Your task to perform on an android device: Add rayovac triple a to the cart on bestbuy Image 0: 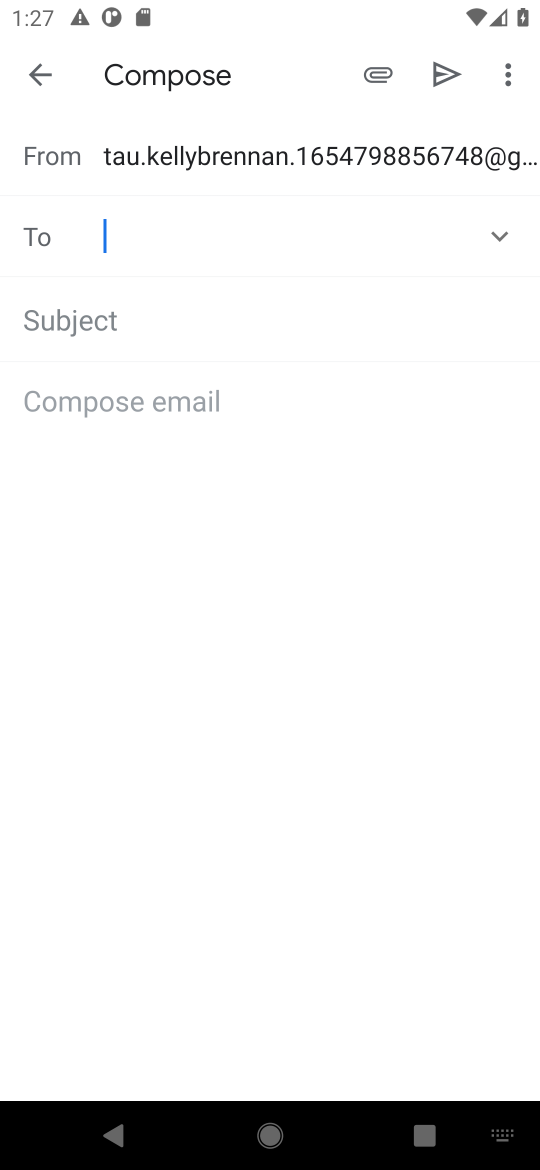
Step 0: task complete